Your task to perform on an android device: find which apps use the phone's location Image 0: 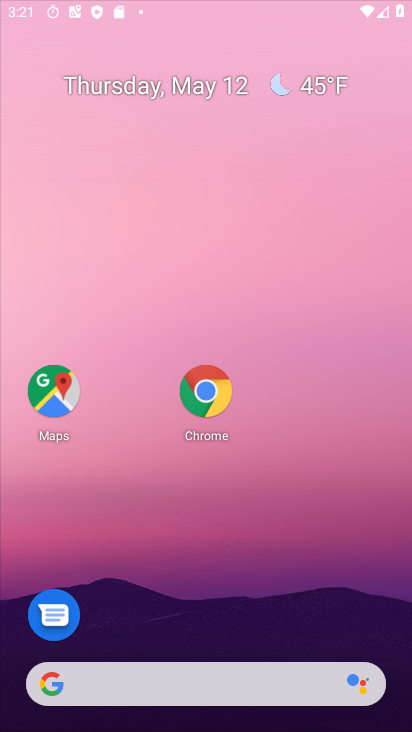
Step 0: drag from (212, 577) to (234, 110)
Your task to perform on an android device: find which apps use the phone's location Image 1: 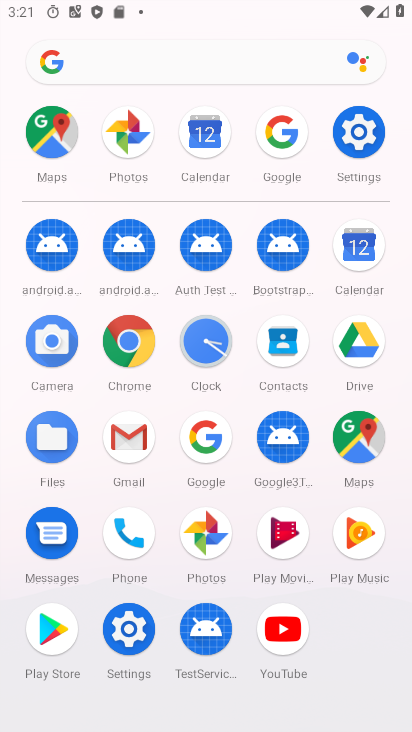
Step 1: click (361, 129)
Your task to perform on an android device: find which apps use the phone's location Image 2: 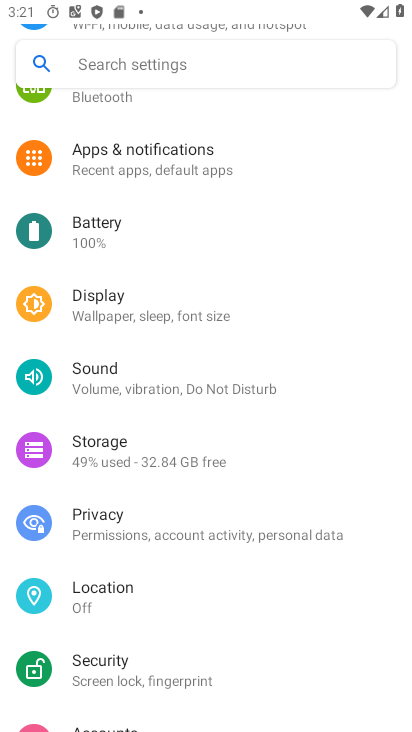
Step 2: click (121, 598)
Your task to perform on an android device: find which apps use the phone's location Image 3: 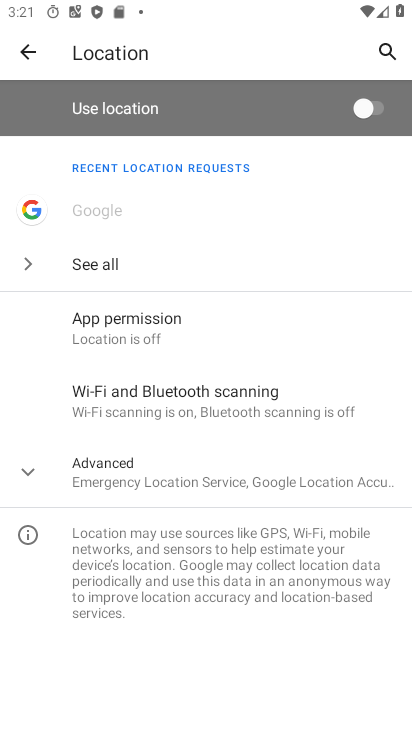
Step 3: click (163, 333)
Your task to perform on an android device: find which apps use the phone's location Image 4: 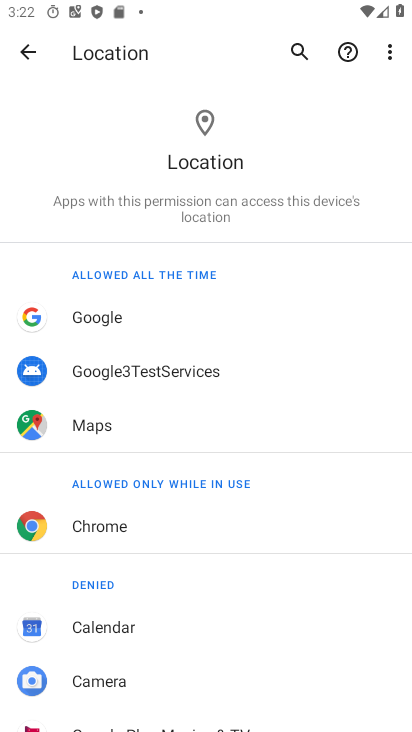
Step 4: task complete